Your task to perform on an android device: Clear the cart on bestbuy. Search for razer blackwidow on bestbuy, select the first entry, add it to the cart, then select checkout. Image 0: 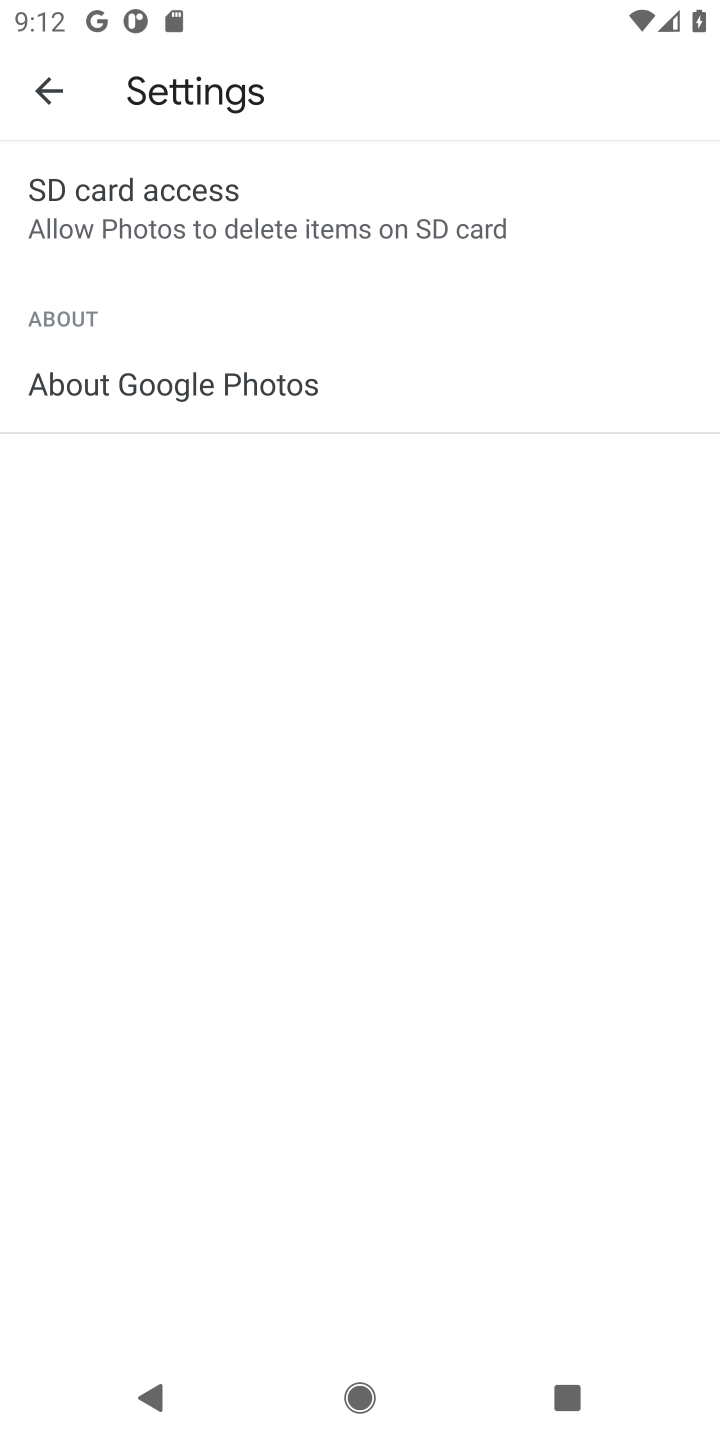
Step 0: task complete